Your task to perform on an android device: Do I have any events today? Image 0: 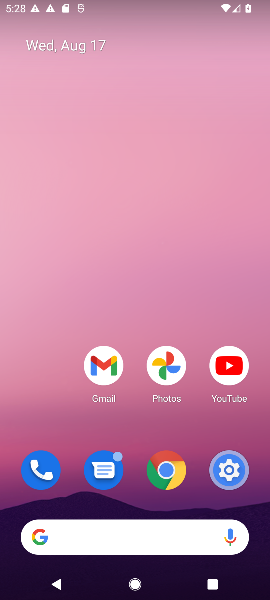
Step 0: drag from (137, 456) to (145, 54)
Your task to perform on an android device: Do I have any events today? Image 1: 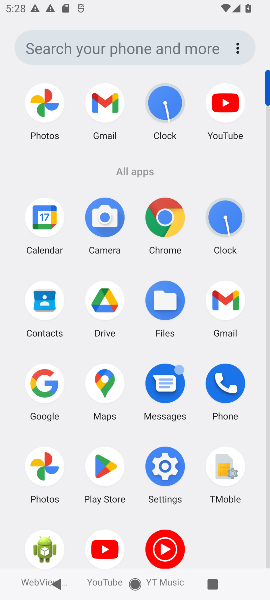
Step 1: click (46, 226)
Your task to perform on an android device: Do I have any events today? Image 2: 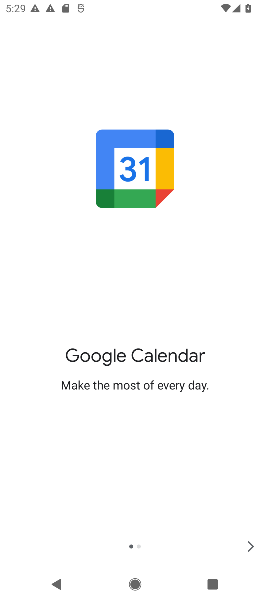
Step 2: click (246, 545)
Your task to perform on an android device: Do I have any events today? Image 3: 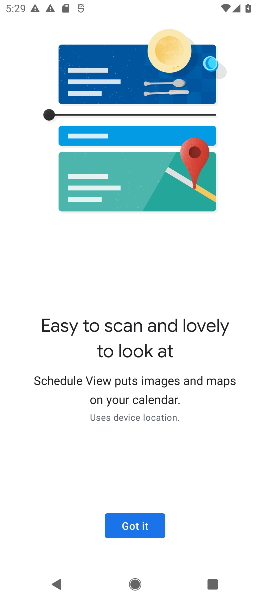
Step 3: click (137, 526)
Your task to perform on an android device: Do I have any events today? Image 4: 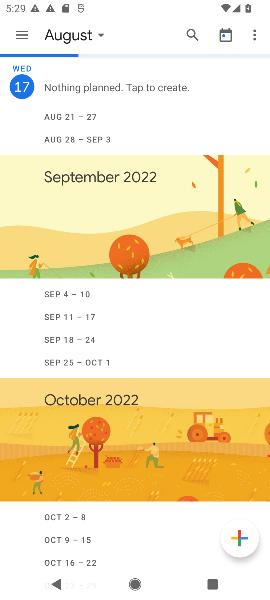
Step 4: click (29, 35)
Your task to perform on an android device: Do I have any events today? Image 5: 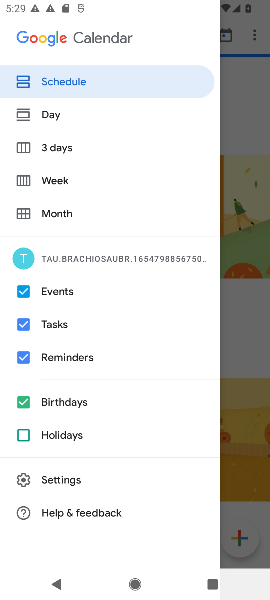
Step 5: click (70, 324)
Your task to perform on an android device: Do I have any events today? Image 6: 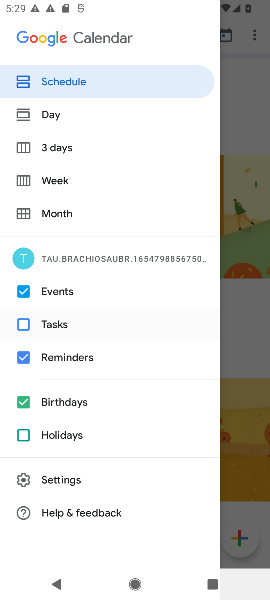
Step 6: click (69, 350)
Your task to perform on an android device: Do I have any events today? Image 7: 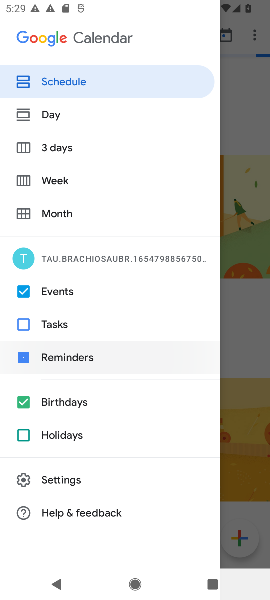
Step 7: click (69, 405)
Your task to perform on an android device: Do I have any events today? Image 8: 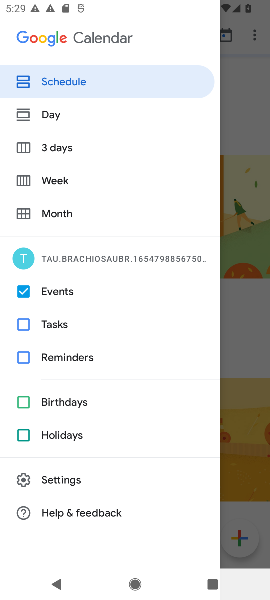
Step 8: click (62, 118)
Your task to perform on an android device: Do I have any events today? Image 9: 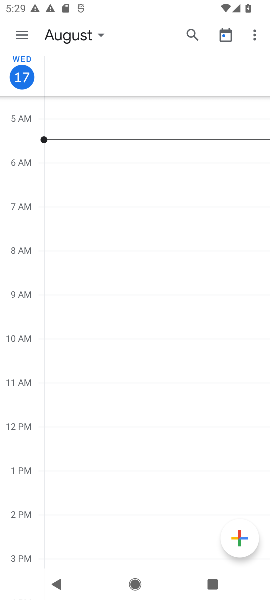
Step 9: task complete